Your task to perform on an android device: open a new tab in the chrome app Image 0: 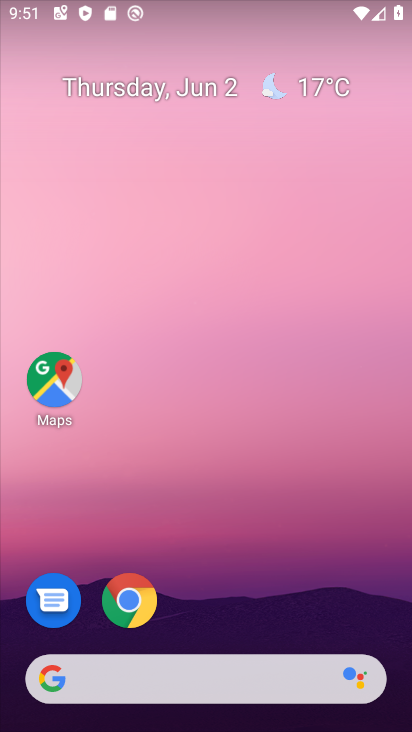
Step 0: drag from (252, 484) to (182, 40)
Your task to perform on an android device: open a new tab in the chrome app Image 1: 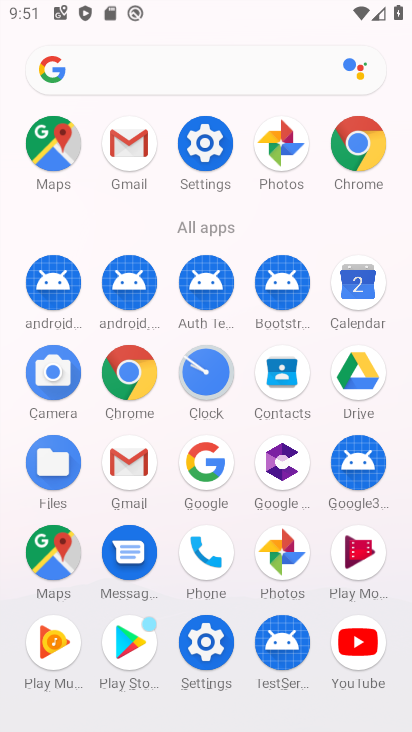
Step 1: click (354, 137)
Your task to perform on an android device: open a new tab in the chrome app Image 2: 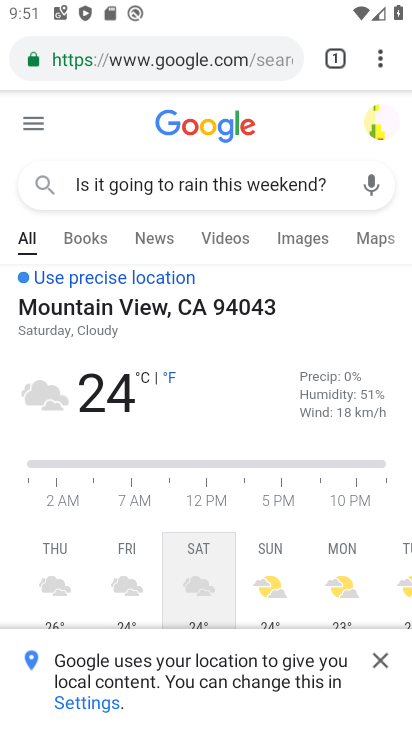
Step 2: drag from (378, 59) to (152, 114)
Your task to perform on an android device: open a new tab in the chrome app Image 3: 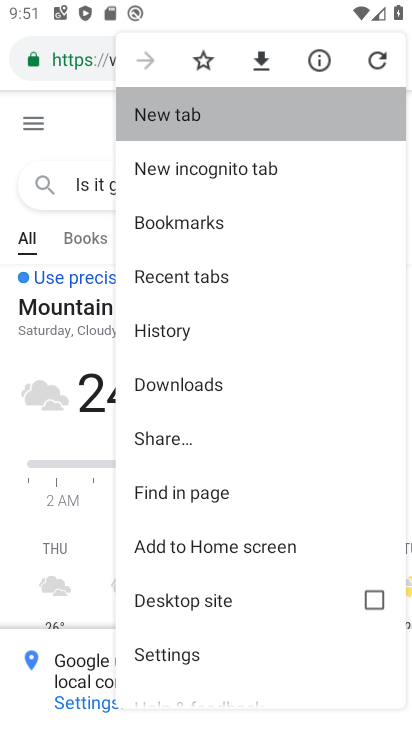
Step 3: click (152, 114)
Your task to perform on an android device: open a new tab in the chrome app Image 4: 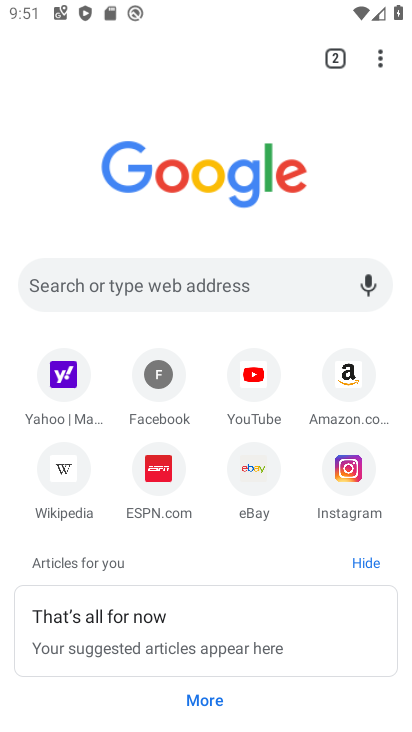
Step 4: task complete